Your task to perform on an android device: Go to sound settings Image 0: 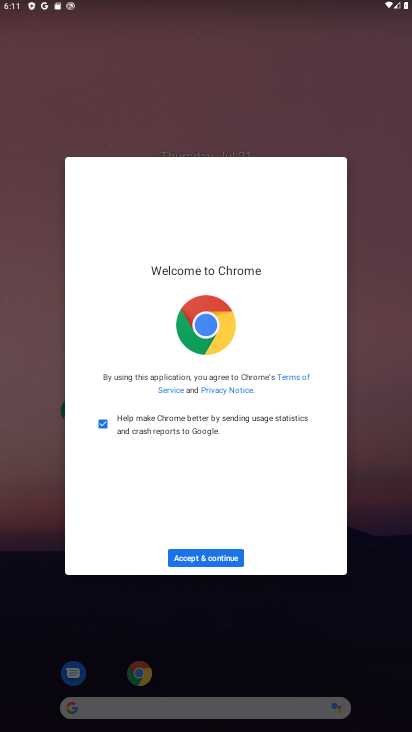
Step 0: press home button
Your task to perform on an android device: Go to sound settings Image 1: 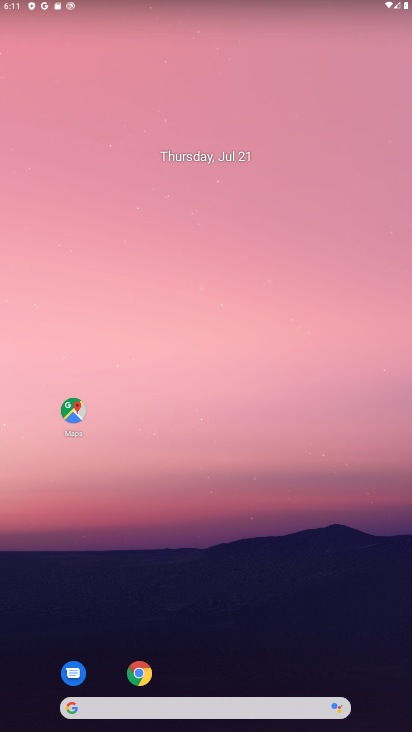
Step 1: drag from (168, 578) to (175, 129)
Your task to perform on an android device: Go to sound settings Image 2: 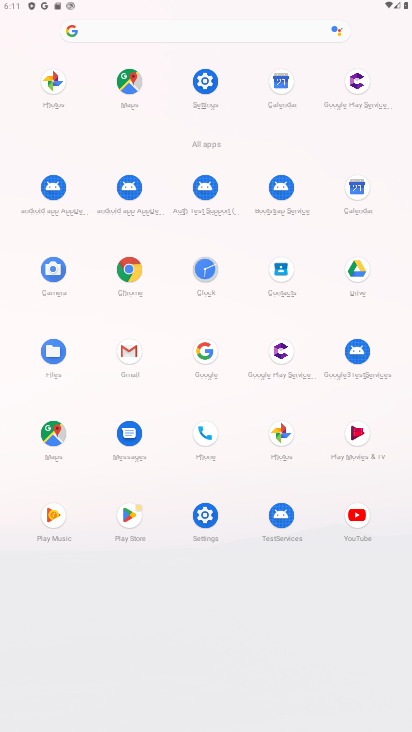
Step 2: click (204, 85)
Your task to perform on an android device: Go to sound settings Image 3: 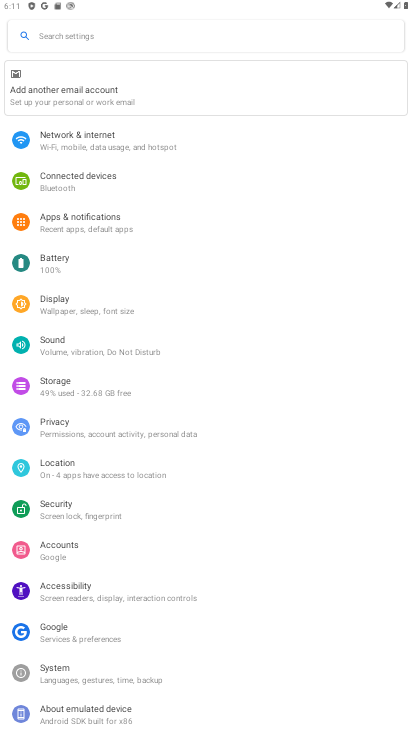
Step 3: click (50, 343)
Your task to perform on an android device: Go to sound settings Image 4: 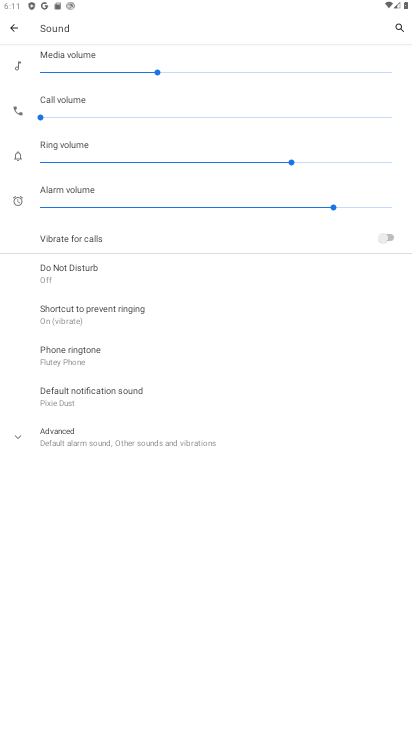
Step 4: task complete